Your task to perform on an android device: move a message to another label in the gmail app Image 0: 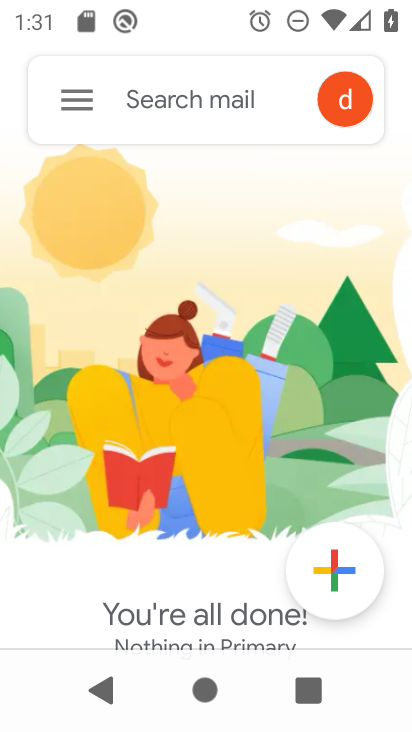
Step 0: press home button
Your task to perform on an android device: move a message to another label in the gmail app Image 1: 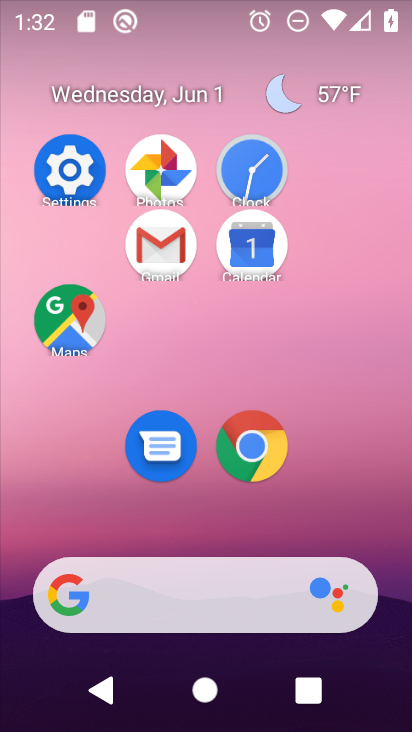
Step 1: click (176, 258)
Your task to perform on an android device: move a message to another label in the gmail app Image 2: 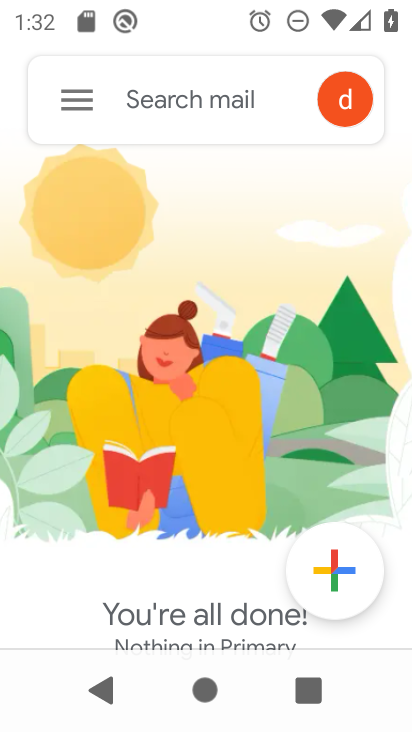
Step 2: click (65, 129)
Your task to perform on an android device: move a message to another label in the gmail app Image 3: 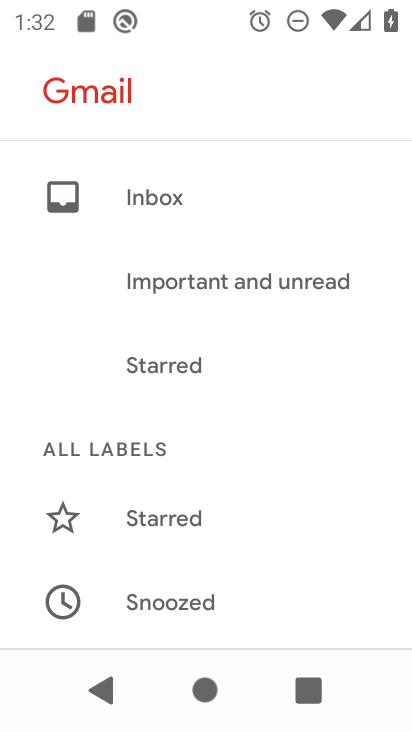
Step 3: drag from (160, 582) to (153, 165)
Your task to perform on an android device: move a message to another label in the gmail app Image 4: 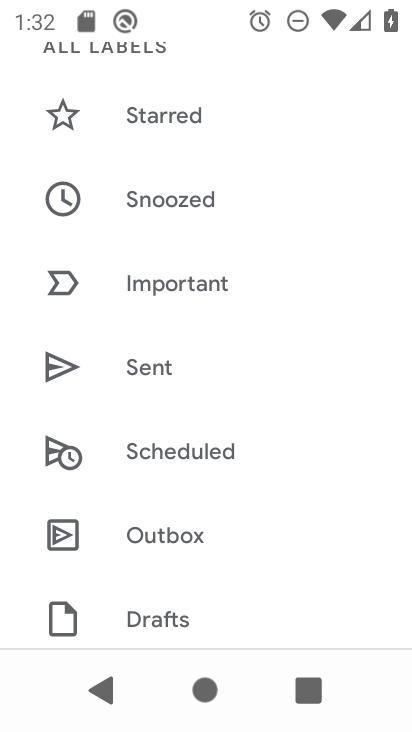
Step 4: drag from (197, 505) to (179, 142)
Your task to perform on an android device: move a message to another label in the gmail app Image 5: 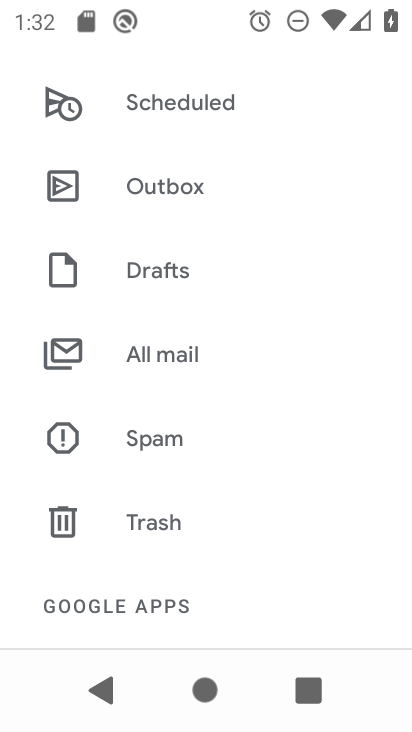
Step 5: click (221, 366)
Your task to perform on an android device: move a message to another label in the gmail app Image 6: 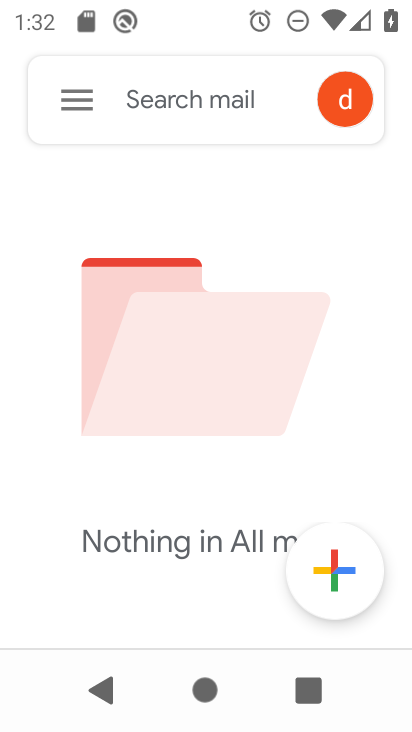
Step 6: task complete